Your task to perform on an android device: Go to notification settings Image 0: 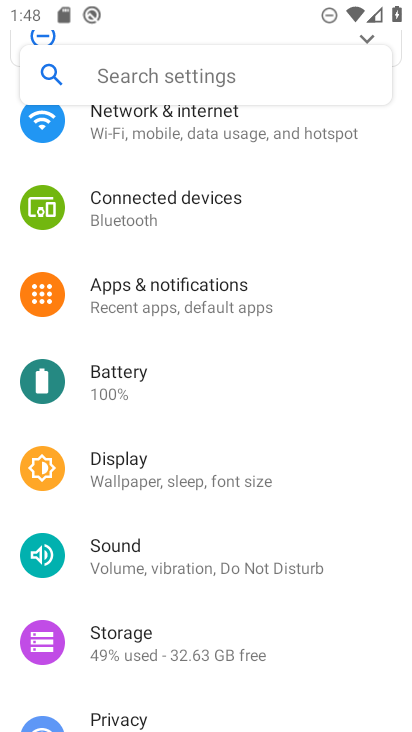
Step 0: click (183, 308)
Your task to perform on an android device: Go to notification settings Image 1: 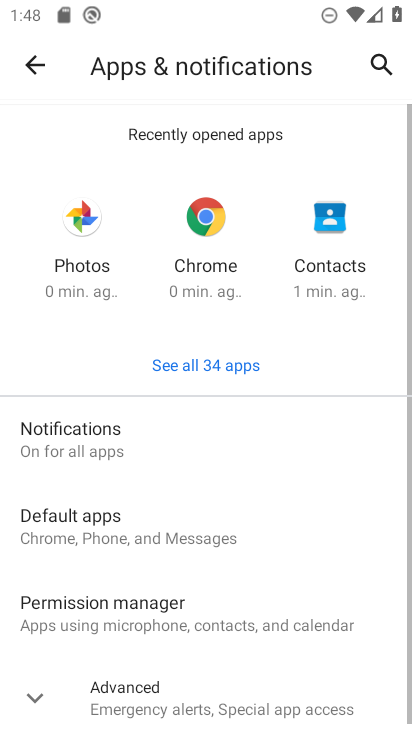
Step 1: click (169, 456)
Your task to perform on an android device: Go to notification settings Image 2: 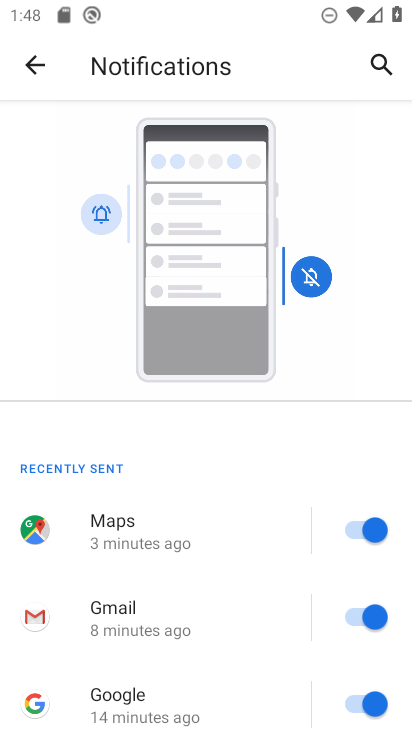
Step 2: task complete